Your task to perform on an android device: turn pop-ups off in chrome Image 0: 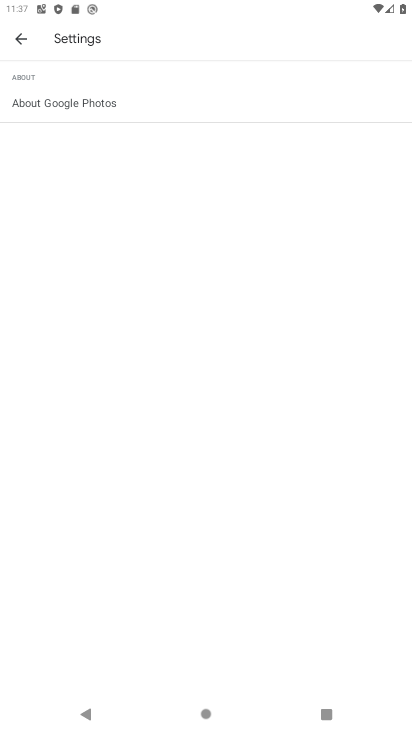
Step 0: press home button
Your task to perform on an android device: turn pop-ups off in chrome Image 1: 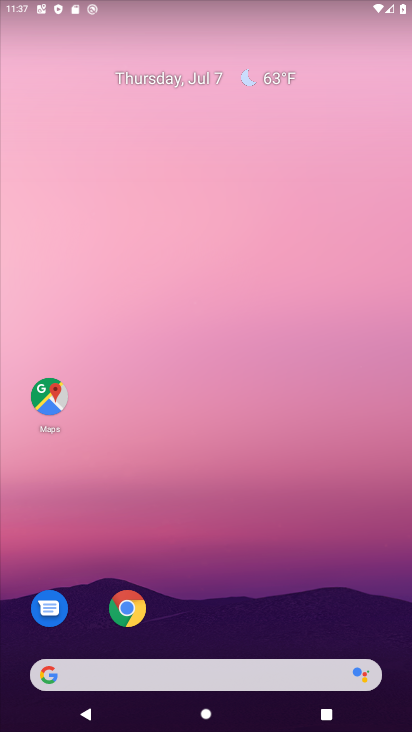
Step 1: click (129, 602)
Your task to perform on an android device: turn pop-ups off in chrome Image 2: 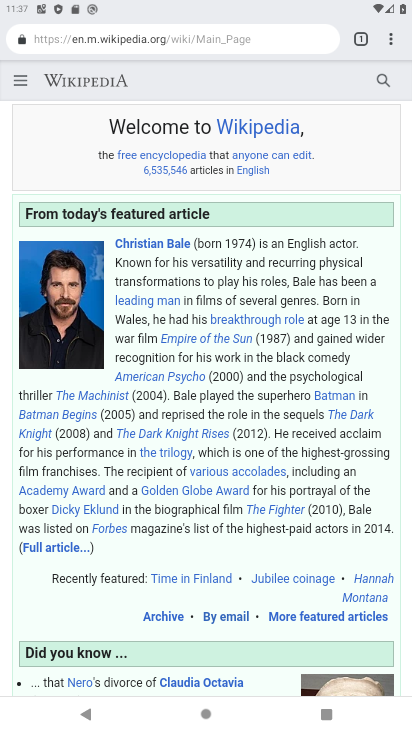
Step 2: click (392, 41)
Your task to perform on an android device: turn pop-ups off in chrome Image 3: 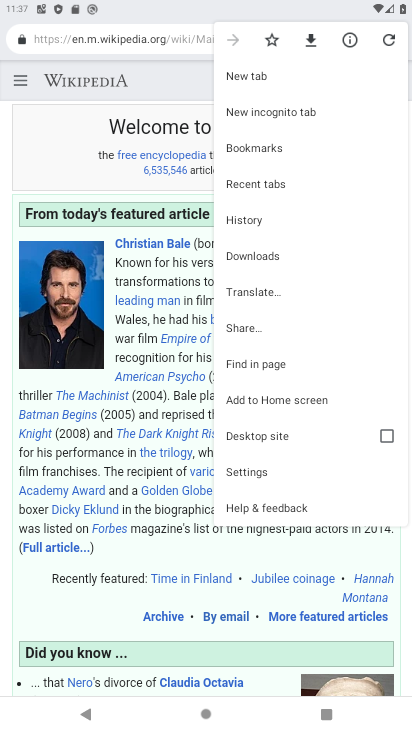
Step 3: click (245, 469)
Your task to perform on an android device: turn pop-ups off in chrome Image 4: 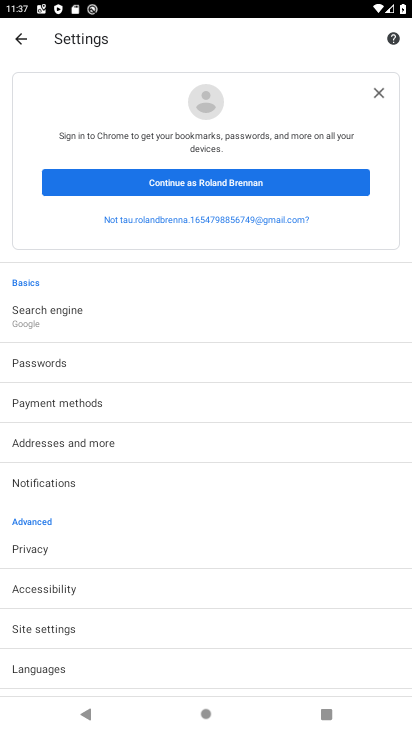
Step 4: drag from (245, 469) to (319, 130)
Your task to perform on an android device: turn pop-ups off in chrome Image 5: 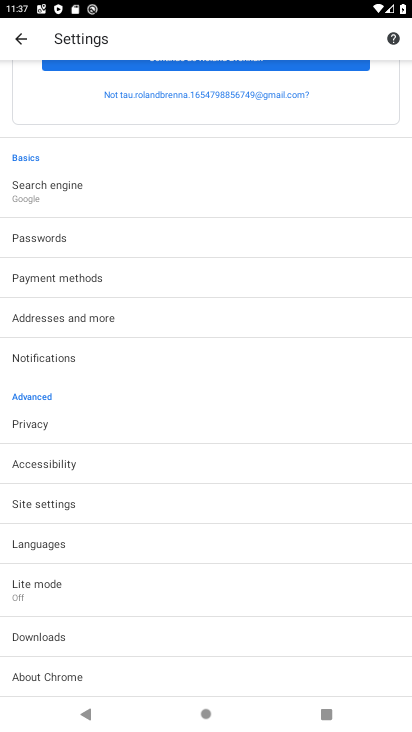
Step 5: click (106, 493)
Your task to perform on an android device: turn pop-ups off in chrome Image 6: 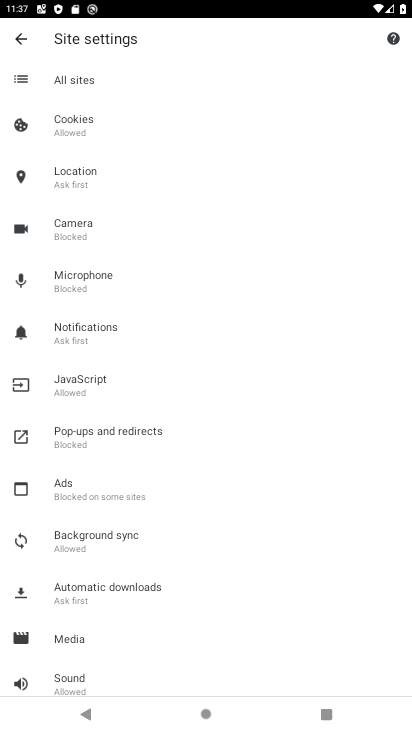
Step 6: click (101, 442)
Your task to perform on an android device: turn pop-ups off in chrome Image 7: 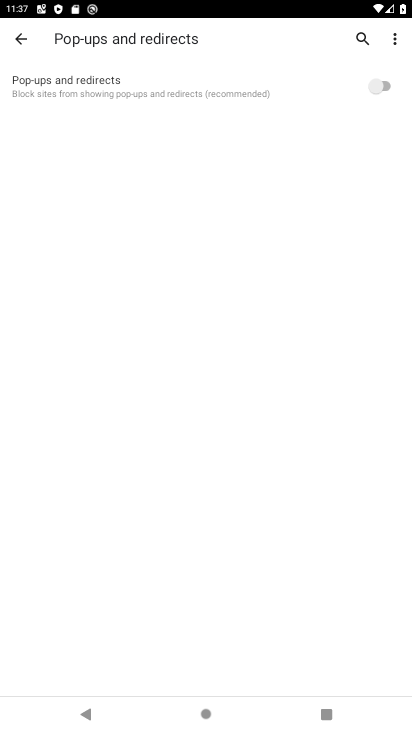
Step 7: task complete